Your task to perform on an android device: toggle priority inbox in the gmail app Image 0: 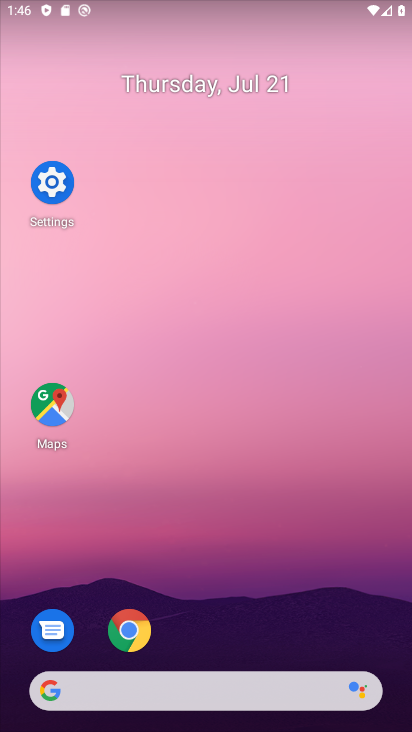
Step 0: drag from (272, 619) to (274, 206)
Your task to perform on an android device: toggle priority inbox in the gmail app Image 1: 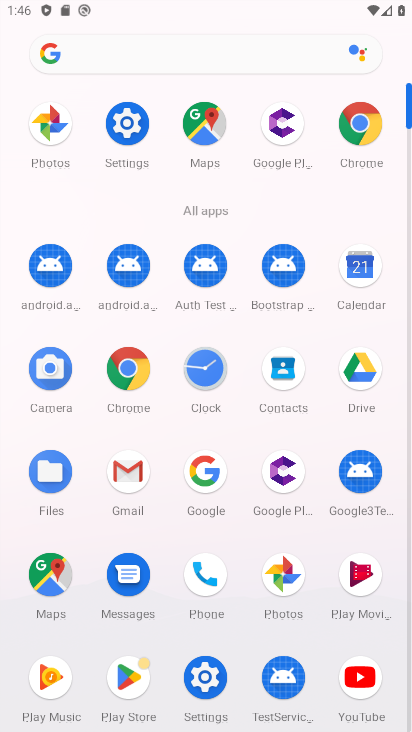
Step 1: drag from (139, 470) to (143, 225)
Your task to perform on an android device: toggle priority inbox in the gmail app Image 2: 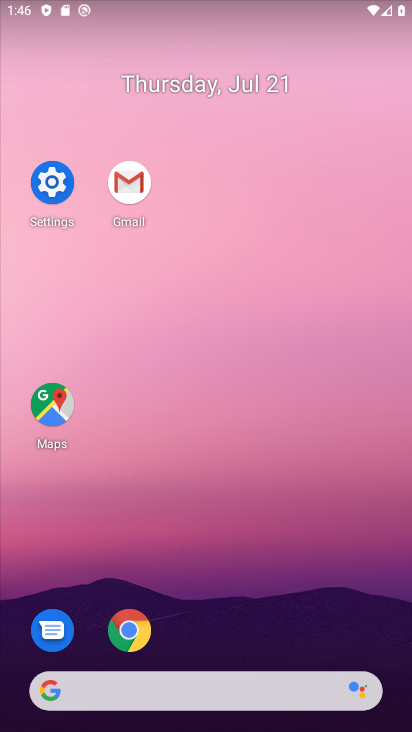
Step 2: click (133, 198)
Your task to perform on an android device: toggle priority inbox in the gmail app Image 3: 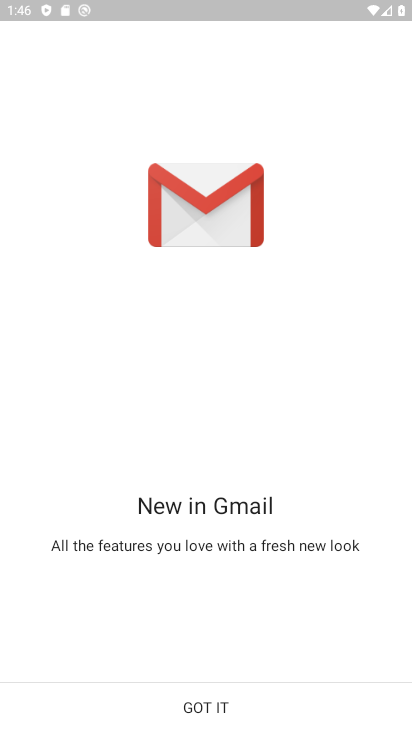
Step 3: click (176, 705)
Your task to perform on an android device: toggle priority inbox in the gmail app Image 4: 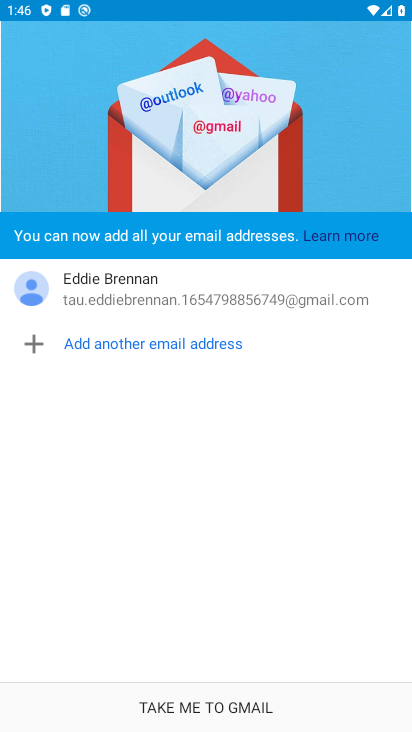
Step 4: click (210, 708)
Your task to perform on an android device: toggle priority inbox in the gmail app Image 5: 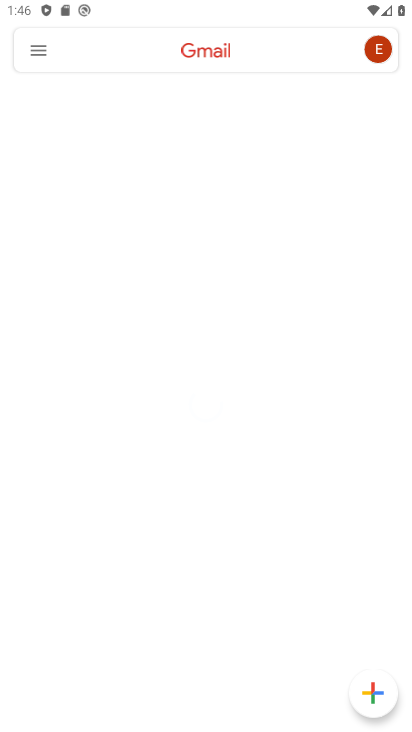
Step 5: click (47, 52)
Your task to perform on an android device: toggle priority inbox in the gmail app Image 6: 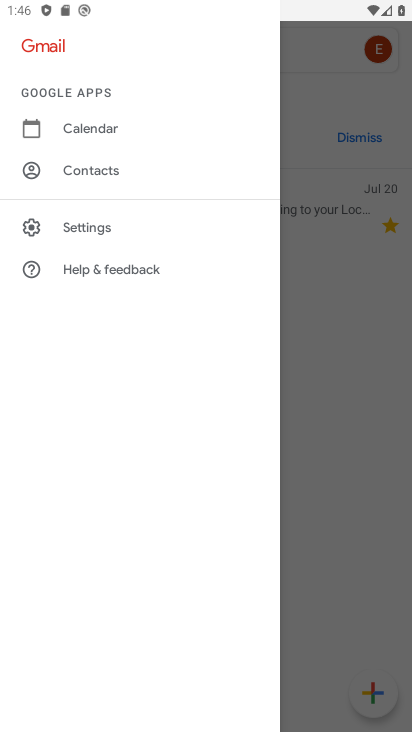
Step 6: click (119, 231)
Your task to perform on an android device: toggle priority inbox in the gmail app Image 7: 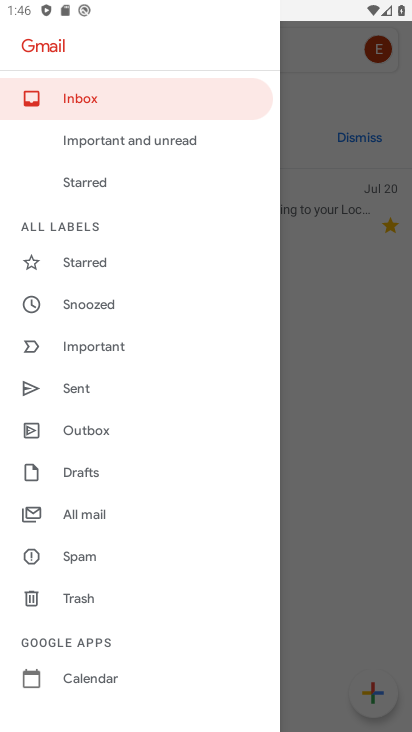
Step 7: drag from (135, 532) to (134, 287)
Your task to perform on an android device: toggle priority inbox in the gmail app Image 8: 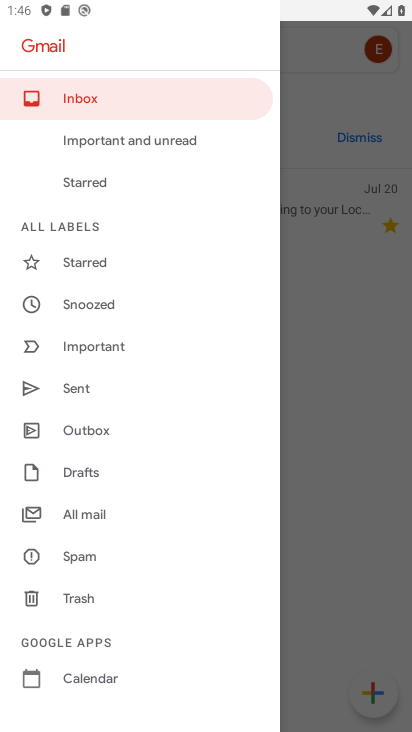
Step 8: drag from (145, 655) to (207, 276)
Your task to perform on an android device: toggle priority inbox in the gmail app Image 9: 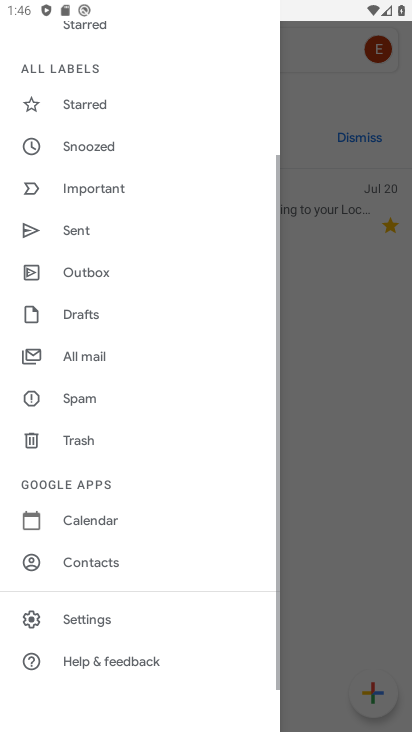
Step 9: click (126, 621)
Your task to perform on an android device: toggle priority inbox in the gmail app Image 10: 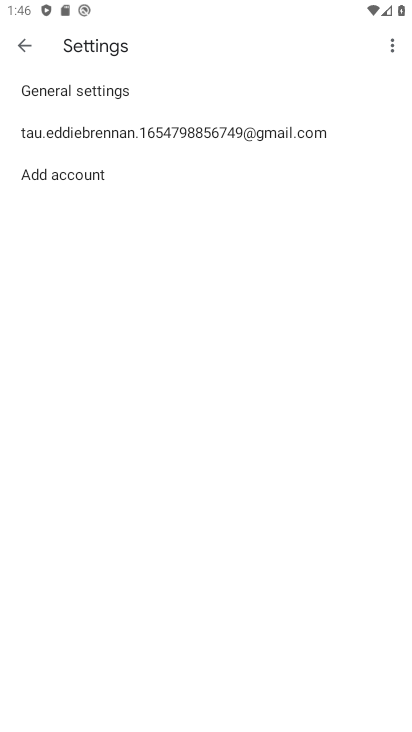
Step 10: click (251, 133)
Your task to perform on an android device: toggle priority inbox in the gmail app Image 11: 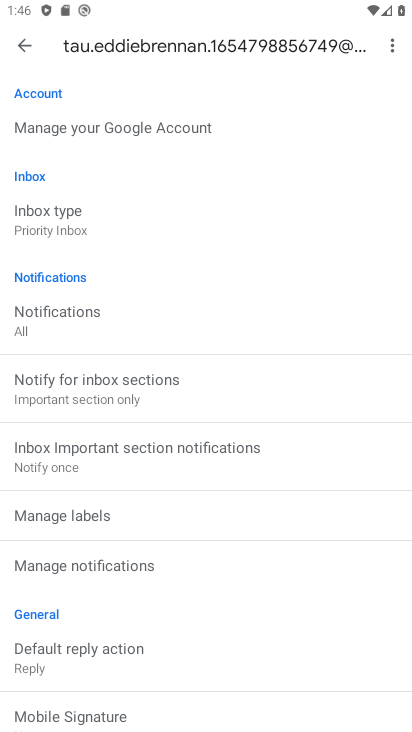
Step 11: click (93, 220)
Your task to perform on an android device: toggle priority inbox in the gmail app Image 12: 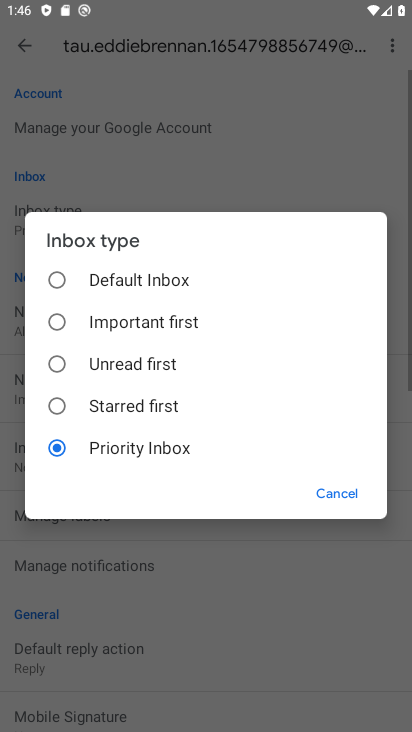
Step 12: click (167, 271)
Your task to perform on an android device: toggle priority inbox in the gmail app Image 13: 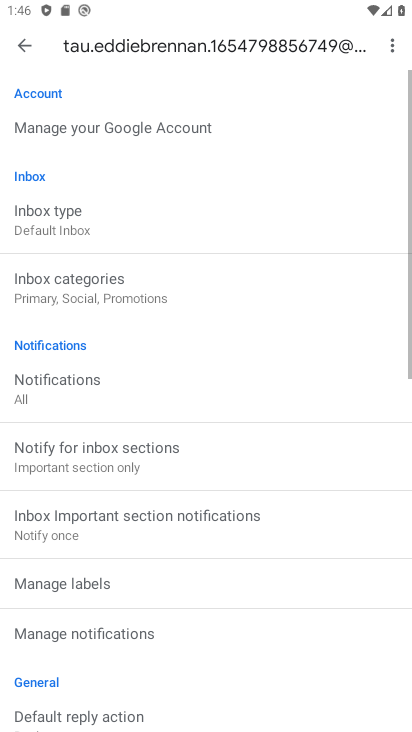
Step 13: task complete